Your task to perform on an android device: turn on the 12-hour format for clock Image 0: 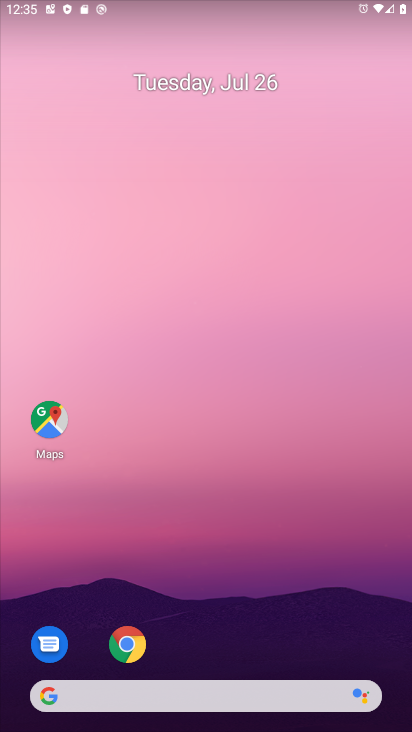
Step 0: drag from (288, 658) to (270, 181)
Your task to perform on an android device: turn on the 12-hour format for clock Image 1: 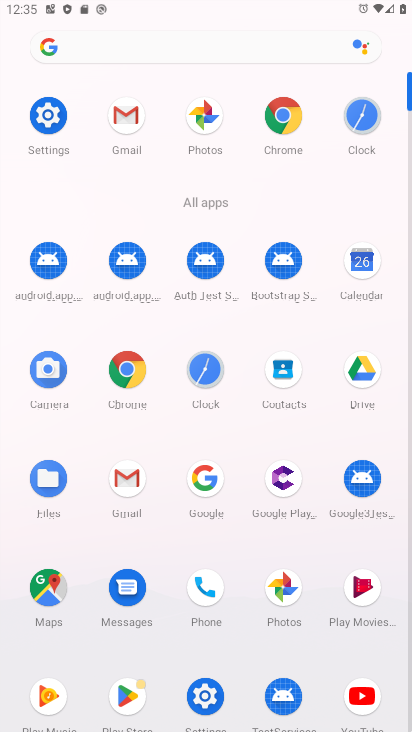
Step 1: click (203, 367)
Your task to perform on an android device: turn on the 12-hour format for clock Image 2: 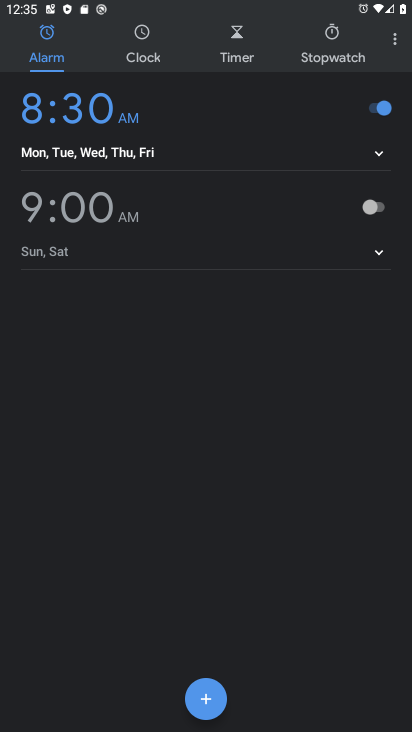
Step 2: click (394, 41)
Your task to perform on an android device: turn on the 12-hour format for clock Image 3: 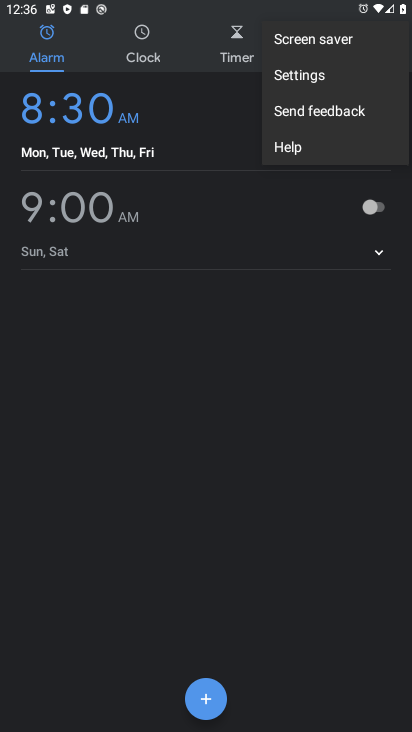
Step 3: click (316, 73)
Your task to perform on an android device: turn on the 12-hour format for clock Image 4: 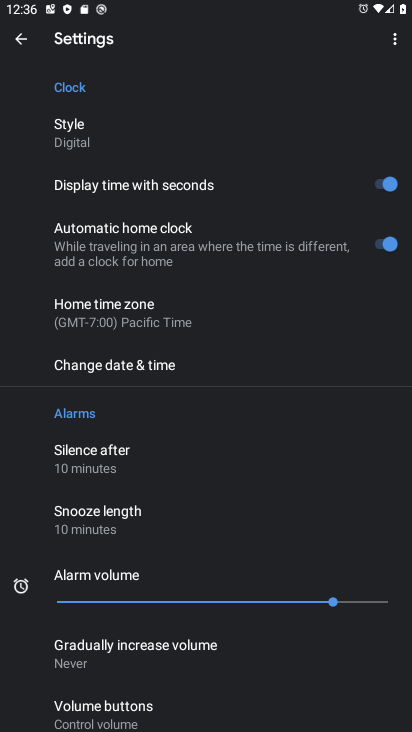
Step 4: drag from (258, 493) to (269, 244)
Your task to perform on an android device: turn on the 12-hour format for clock Image 5: 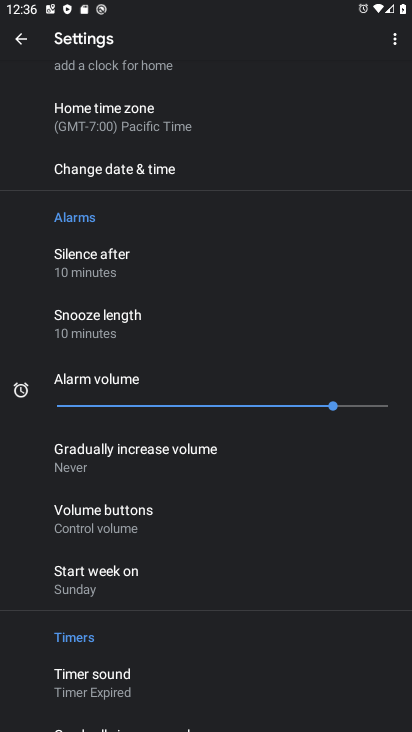
Step 5: click (137, 173)
Your task to perform on an android device: turn on the 12-hour format for clock Image 6: 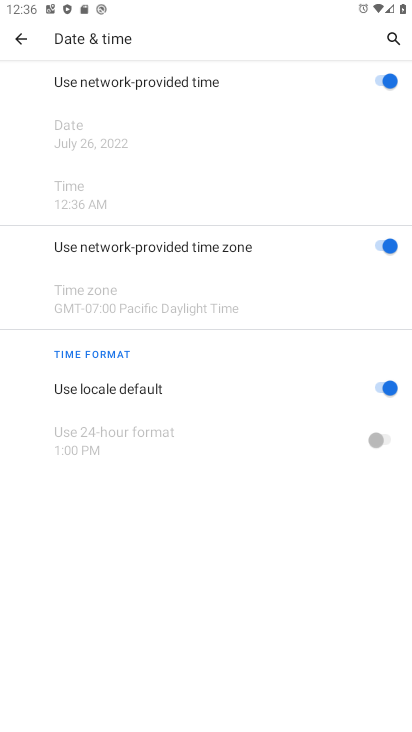
Step 6: click (380, 371)
Your task to perform on an android device: turn on the 12-hour format for clock Image 7: 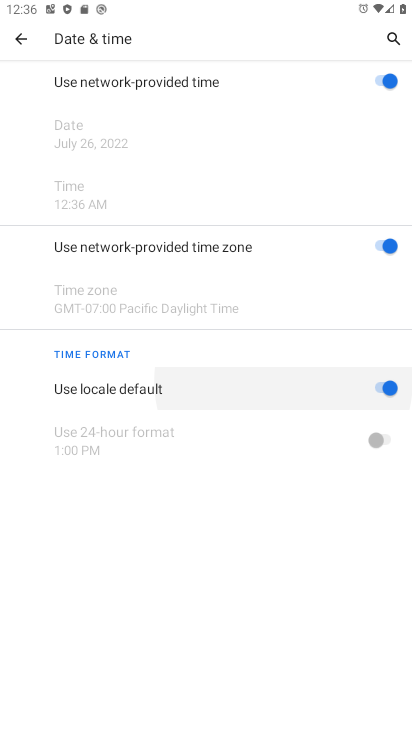
Step 7: click (380, 381)
Your task to perform on an android device: turn on the 12-hour format for clock Image 8: 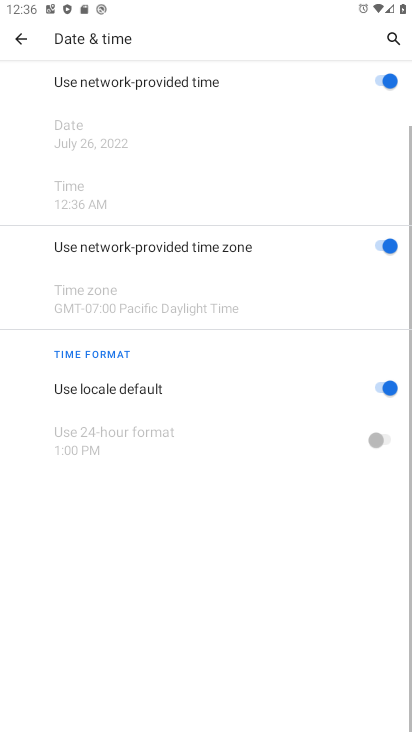
Step 8: click (368, 438)
Your task to perform on an android device: turn on the 12-hour format for clock Image 9: 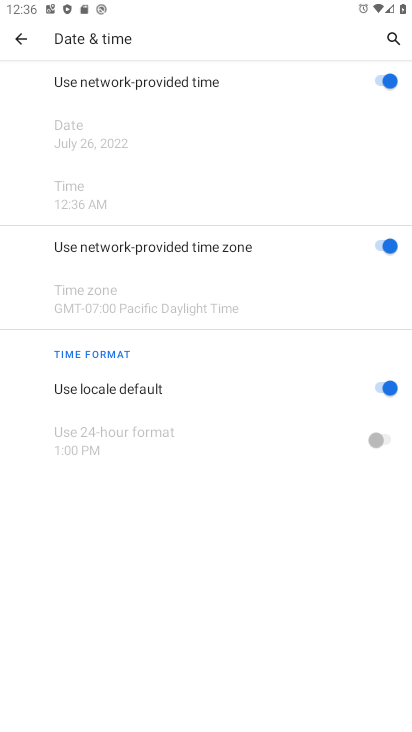
Step 9: click (385, 432)
Your task to perform on an android device: turn on the 12-hour format for clock Image 10: 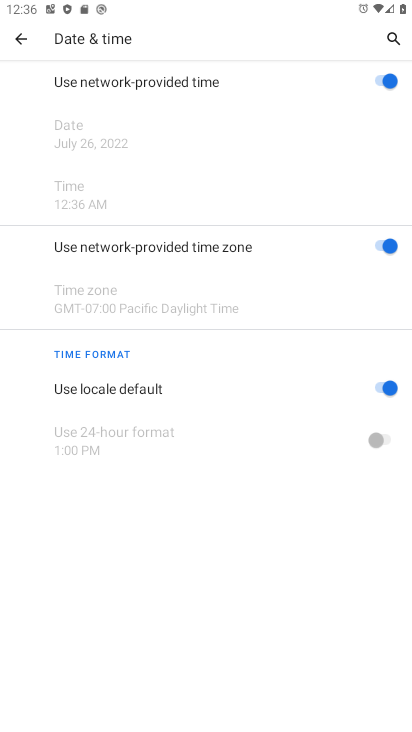
Step 10: click (382, 443)
Your task to perform on an android device: turn on the 12-hour format for clock Image 11: 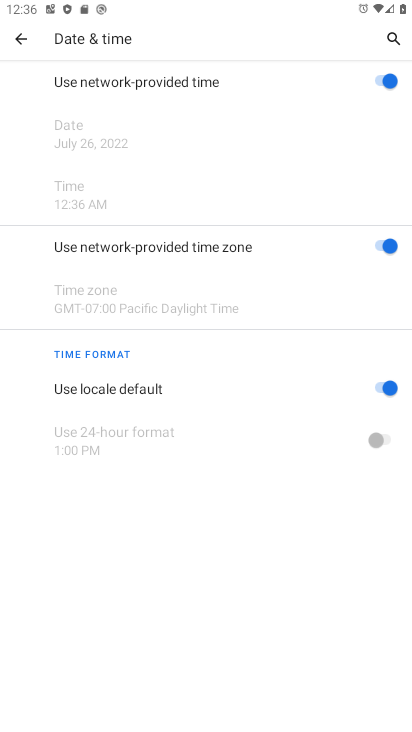
Step 11: click (382, 443)
Your task to perform on an android device: turn on the 12-hour format for clock Image 12: 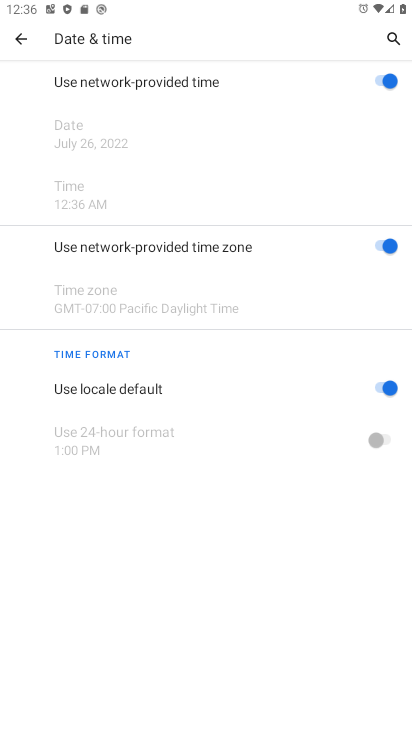
Step 12: click (382, 432)
Your task to perform on an android device: turn on the 12-hour format for clock Image 13: 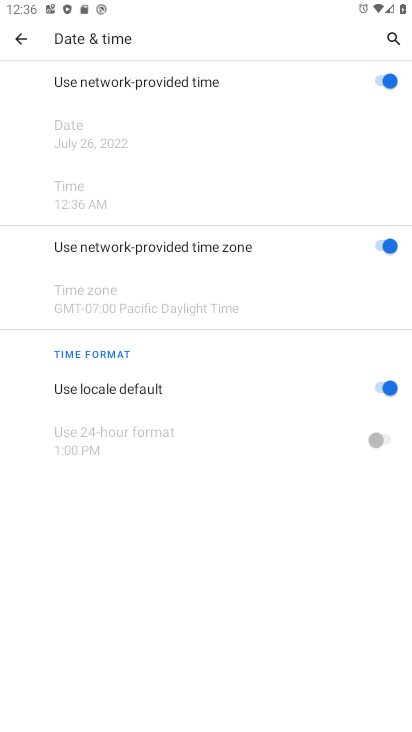
Step 13: click (374, 385)
Your task to perform on an android device: turn on the 12-hour format for clock Image 14: 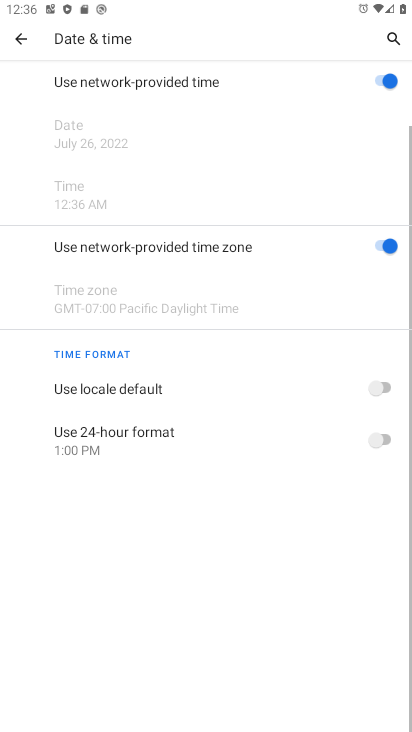
Step 14: click (373, 439)
Your task to perform on an android device: turn on the 12-hour format for clock Image 15: 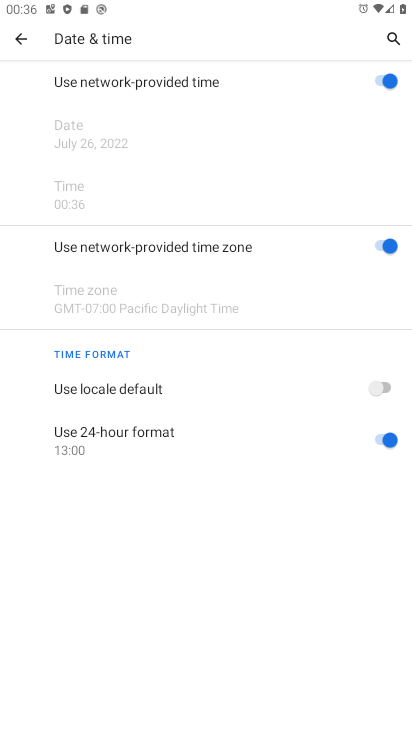
Step 15: task complete